Your task to perform on an android device: change the clock style Image 0: 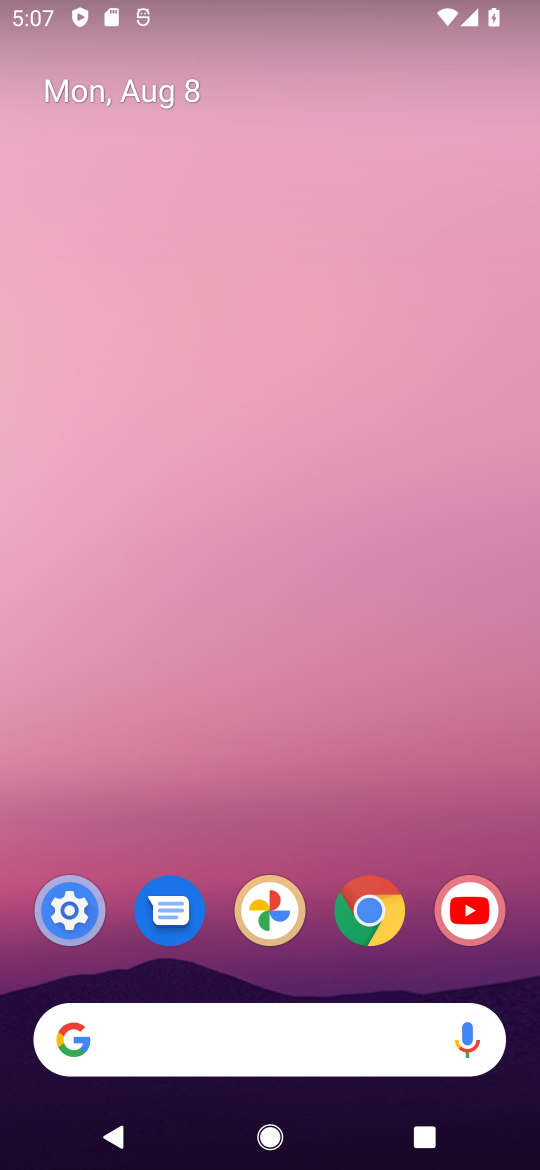
Step 0: drag from (197, 1052) to (300, 305)
Your task to perform on an android device: change the clock style Image 1: 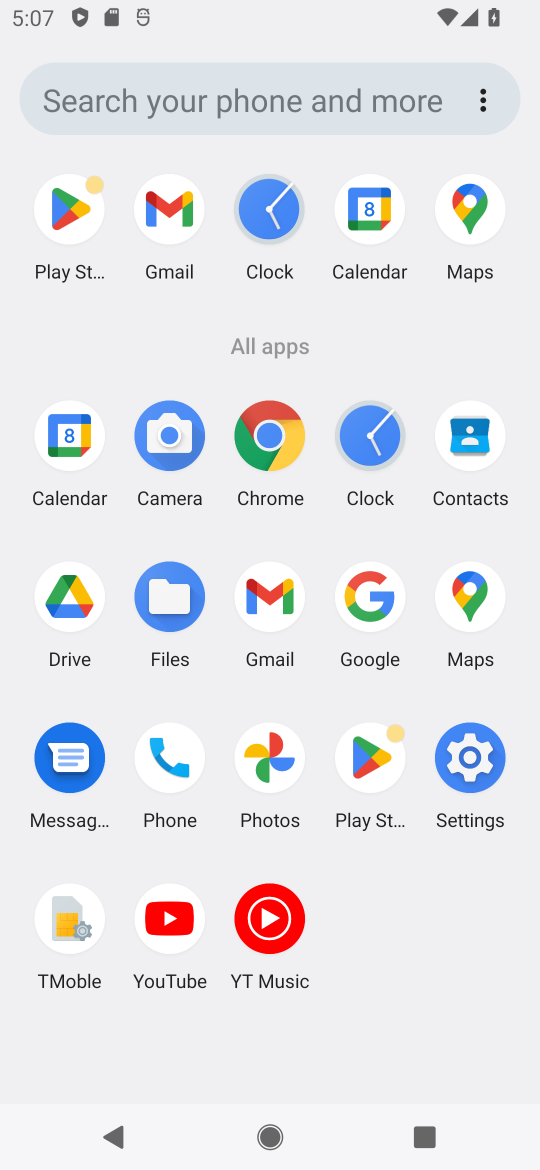
Step 1: click (269, 212)
Your task to perform on an android device: change the clock style Image 2: 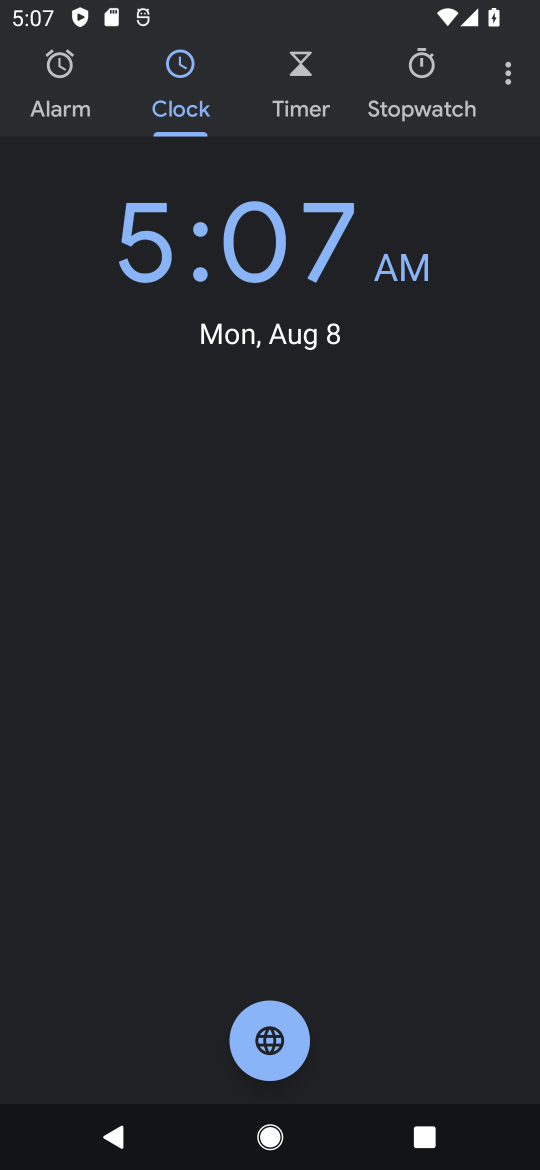
Step 2: click (511, 76)
Your task to perform on an android device: change the clock style Image 3: 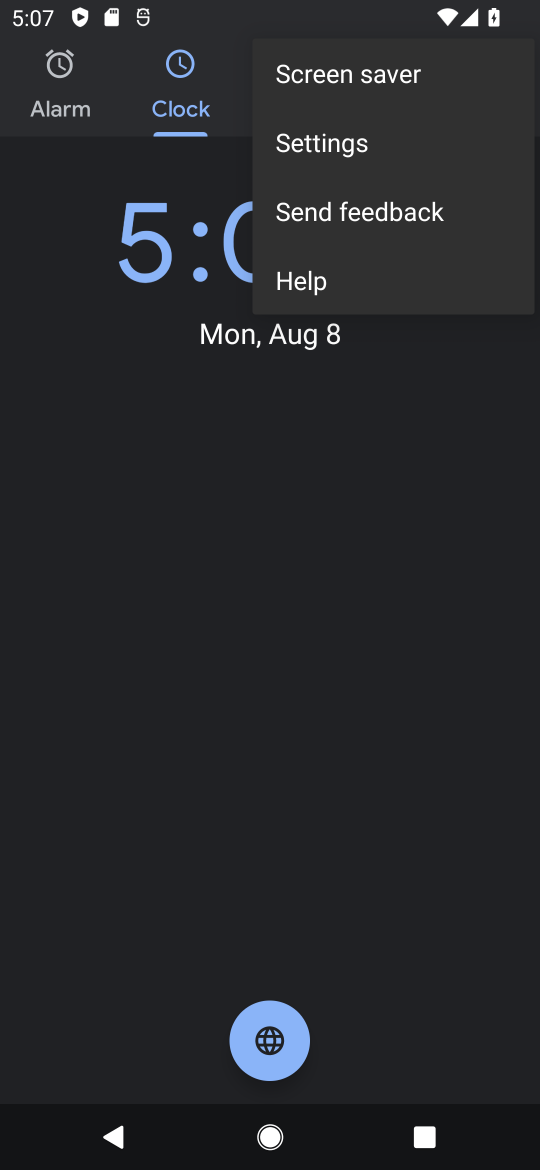
Step 3: click (360, 149)
Your task to perform on an android device: change the clock style Image 4: 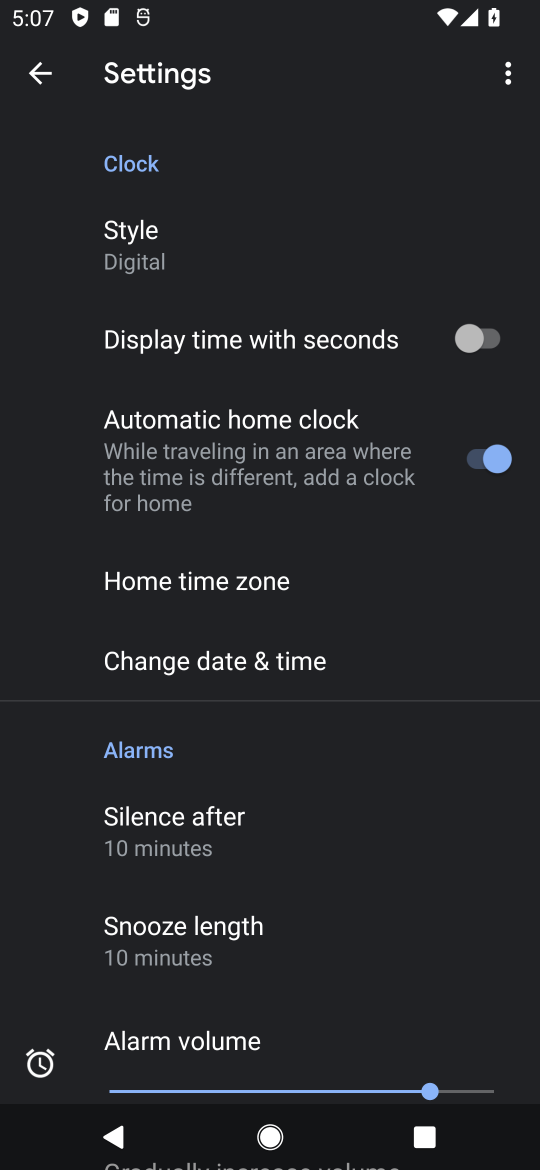
Step 4: click (143, 252)
Your task to perform on an android device: change the clock style Image 5: 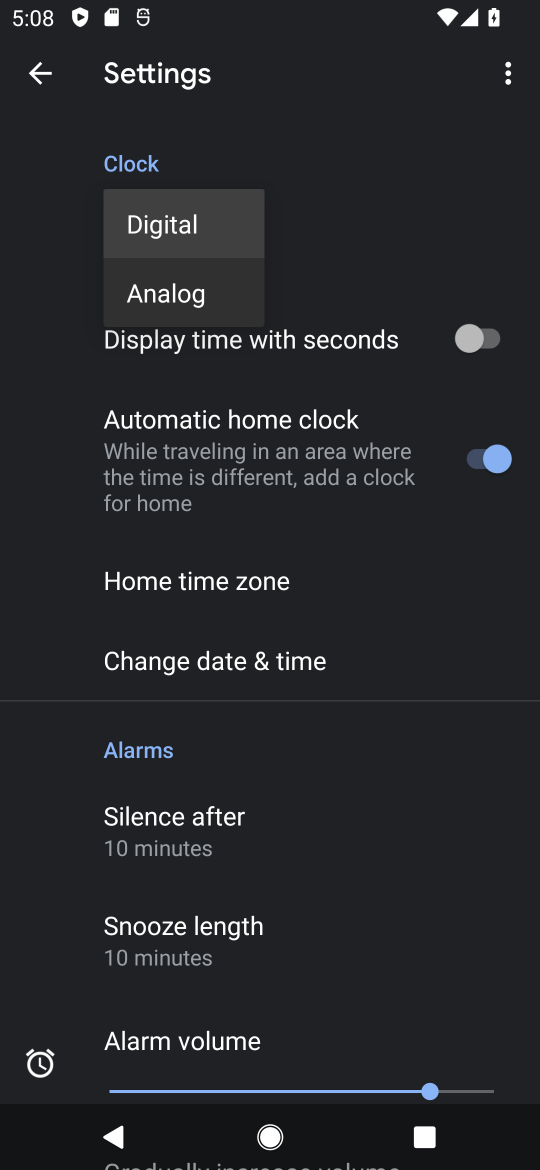
Step 5: click (161, 288)
Your task to perform on an android device: change the clock style Image 6: 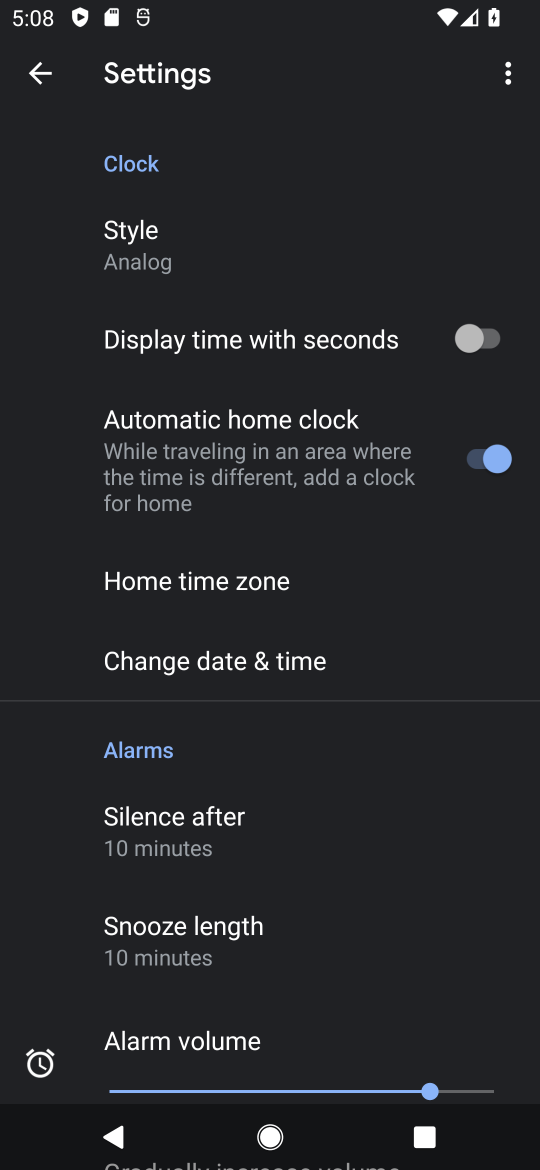
Step 6: task complete